Your task to perform on an android device: install app "Etsy: Buy & Sell Unique Items" Image 0: 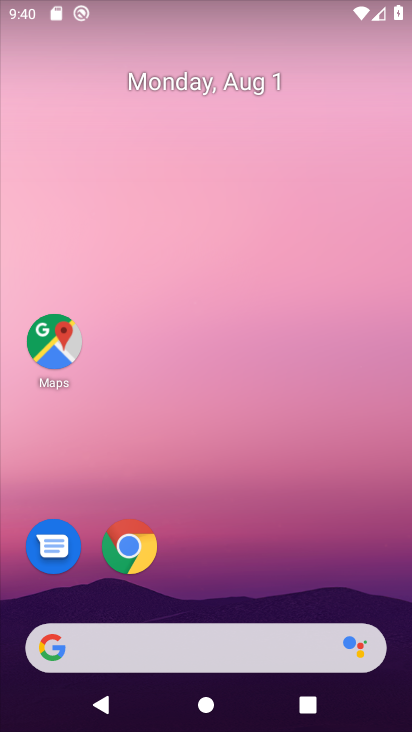
Step 0: press home button
Your task to perform on an android device: install app "Etsy: Buy & Sell Unique Items" Image 1: 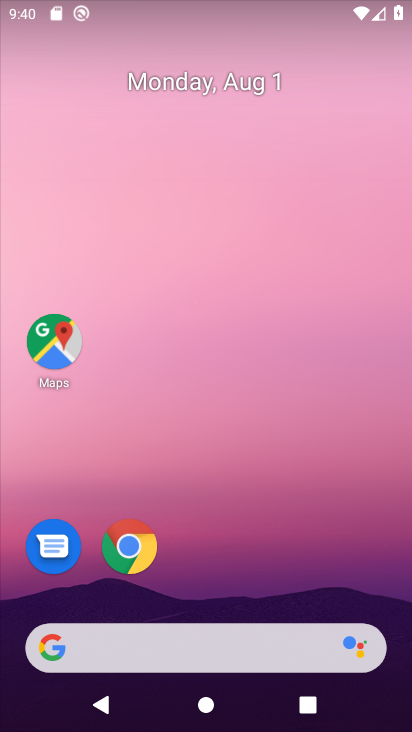
Step 1: drag from (211, 596) to (251, 13)
Your task to perform on an android device: install app "Etsy: Buy & Sell Unique Items" Image 2: 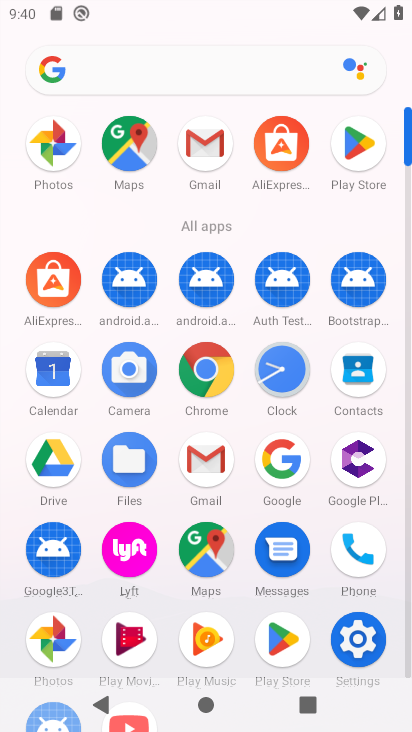
Step 2: click (355, 135)
Your task to perform on an android device: install app "Etsy: Buy & Sell Unique Items" Image 3: 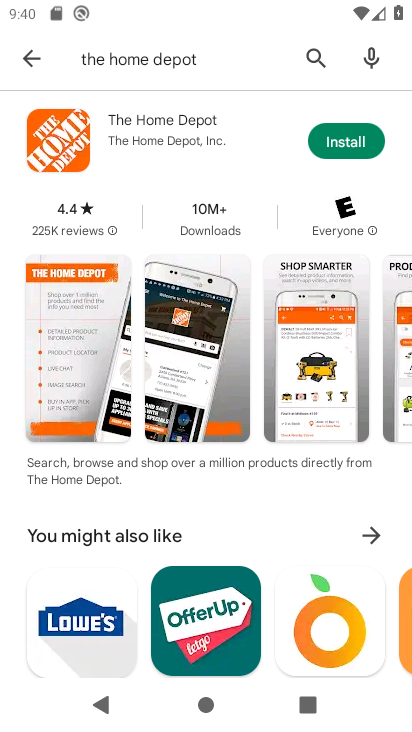
Step 3: click (318, 57)
Your task to perform on an android device: install app "Etsy: Buy & Sell Unique Items" Image 4: 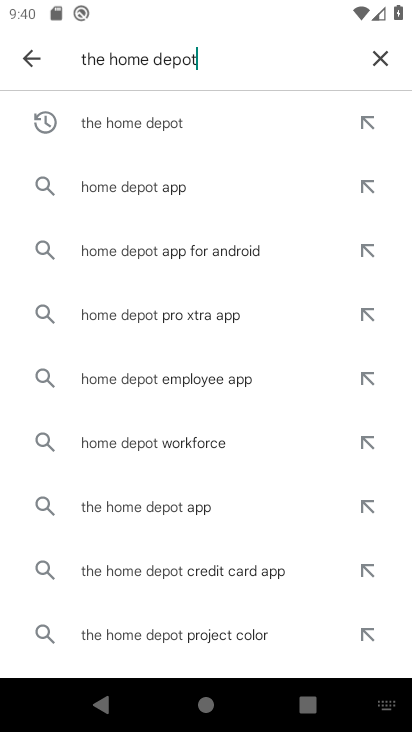
Step 4: click (379, 60)
Your task to perform on an android device: install app "Etsy: Buy & Sell Unique Items" Image 5: 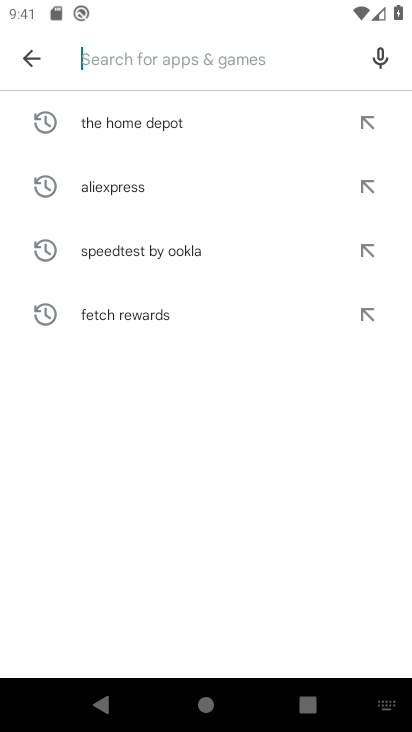
Step 5: type "Etsy: Buy & Sell Unique Items"
Your task to perform on an android device: install app "Etsy: Buy & Sell Unique Items" Image 6: 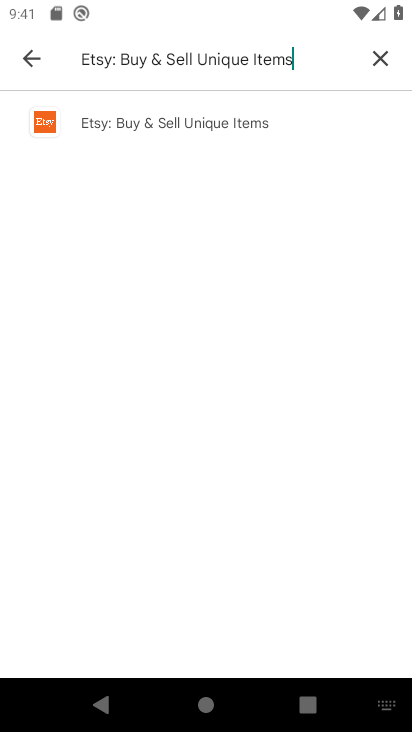
Step 6: click (129, 117)
Your task to perform on an android device: install app "Etsy: Buy & Sell Unique Items" Image 7: 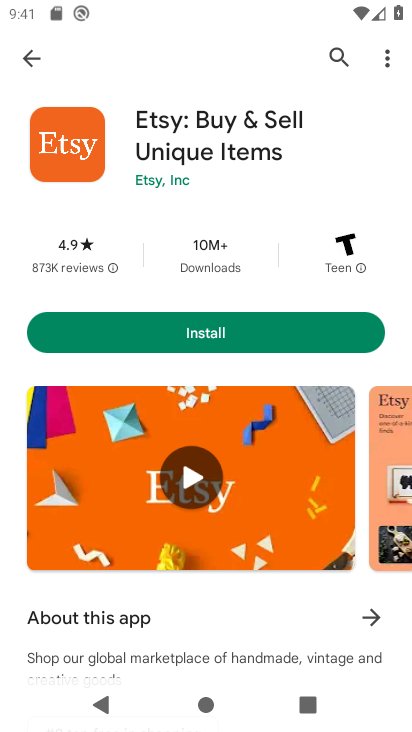
Step 7: click (209, 331)
Your task to perform on an android device: install app "Etsy: Buy & Sell Unique Items" Image 8: 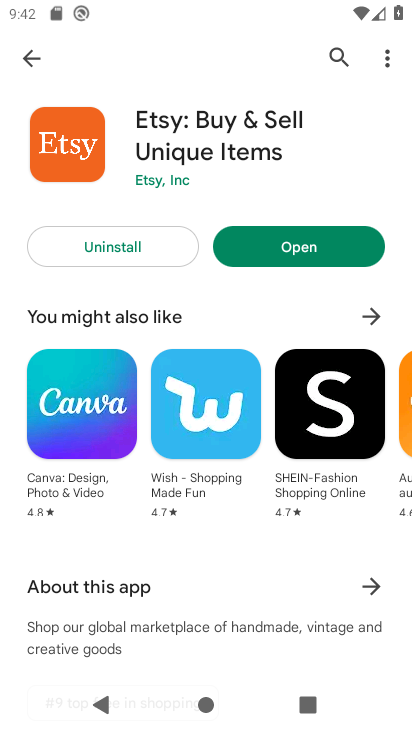
Step 8: click (293, 244)
Your task to perform on an android device: install app "Etsy: Buy & Sell Unique Items" Image 9: 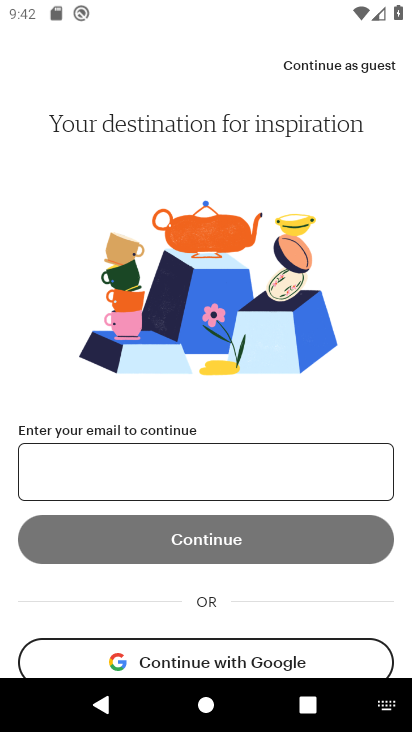
Step 9: click (204, 654)
Your task to perform on an android device: install app "Etsy: Buy & Sell Unique Items" Image 10: 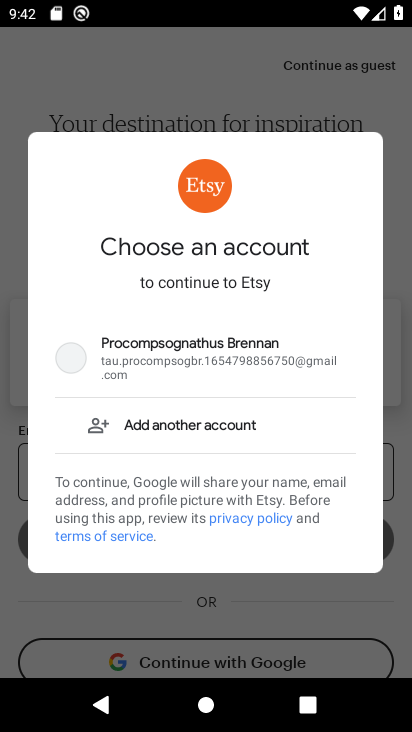
Step 10: click (191, 346)
Your task to perform on an android device: install app "Etsy: Buy & Sell Unique Items" Image 11: 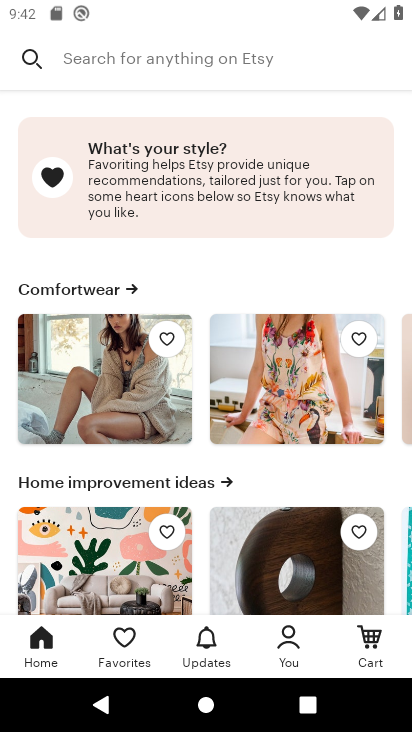
Step 11: task complete